Your task to perform on an android device: Open accessibility settings Image 0: 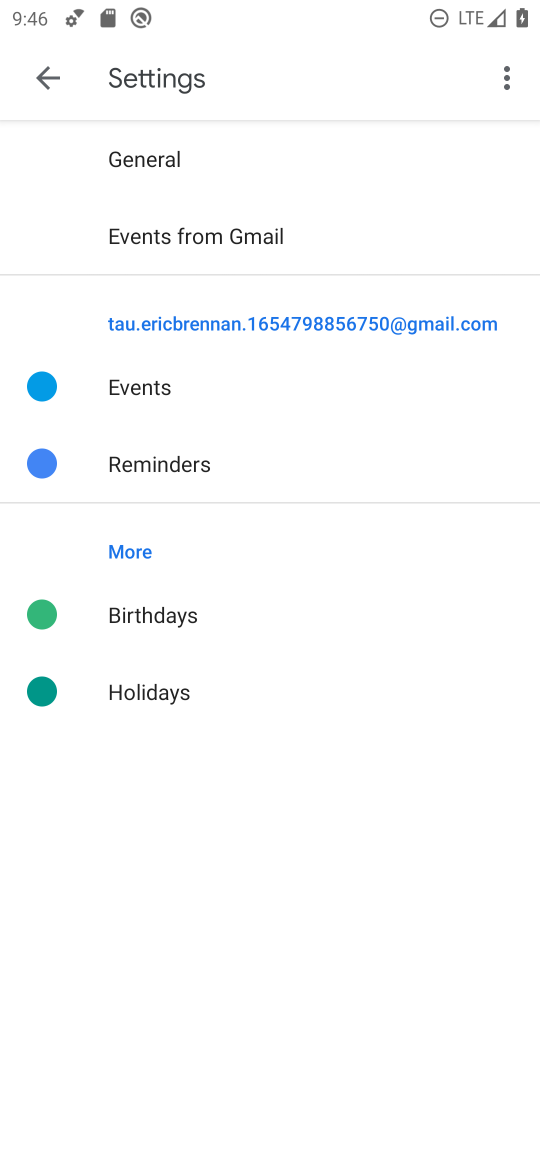
Step 0: press home button
Your task to perform on an android device: Open accessibility settings Image 1: 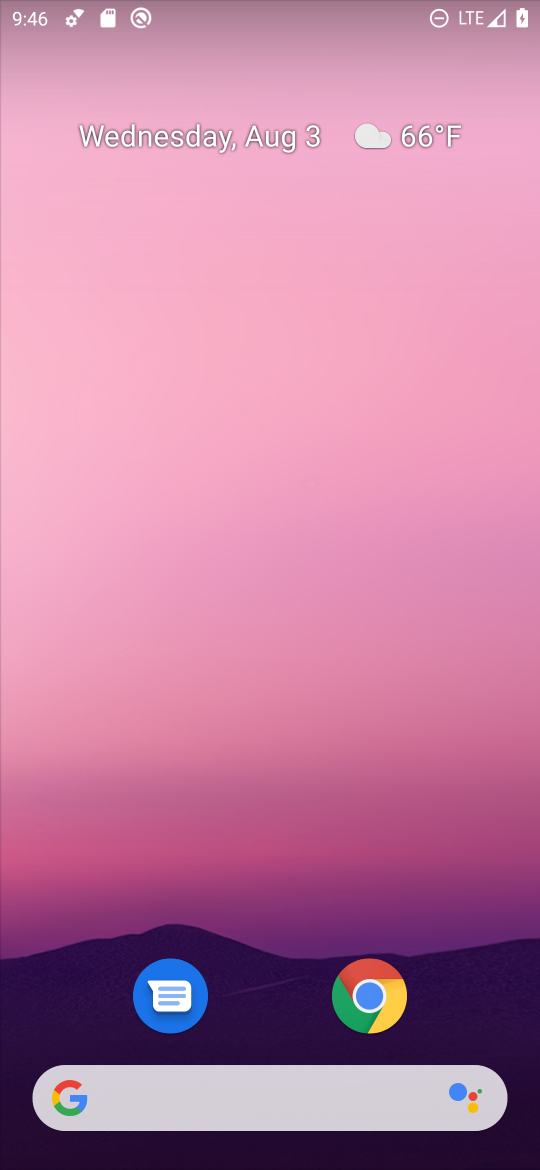
Step 1: drag from (276, 906) to (277, 18)
Your task to perform on an android device: Open accessibility settings Image 2: 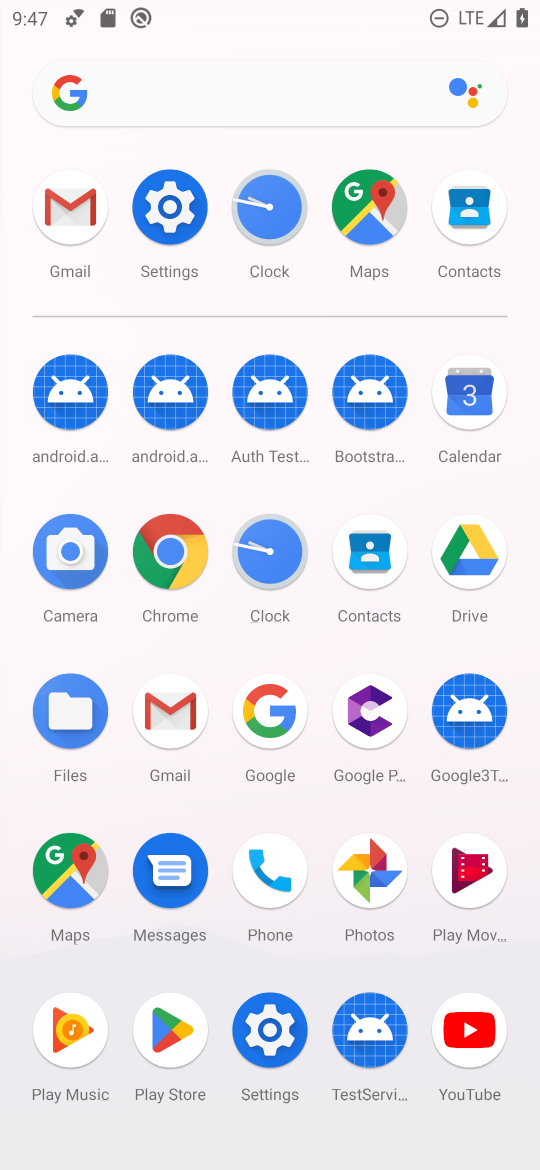
Step 2: click (173, 204)
Your task to perform on an android device: Open accessibility settings Image 3: 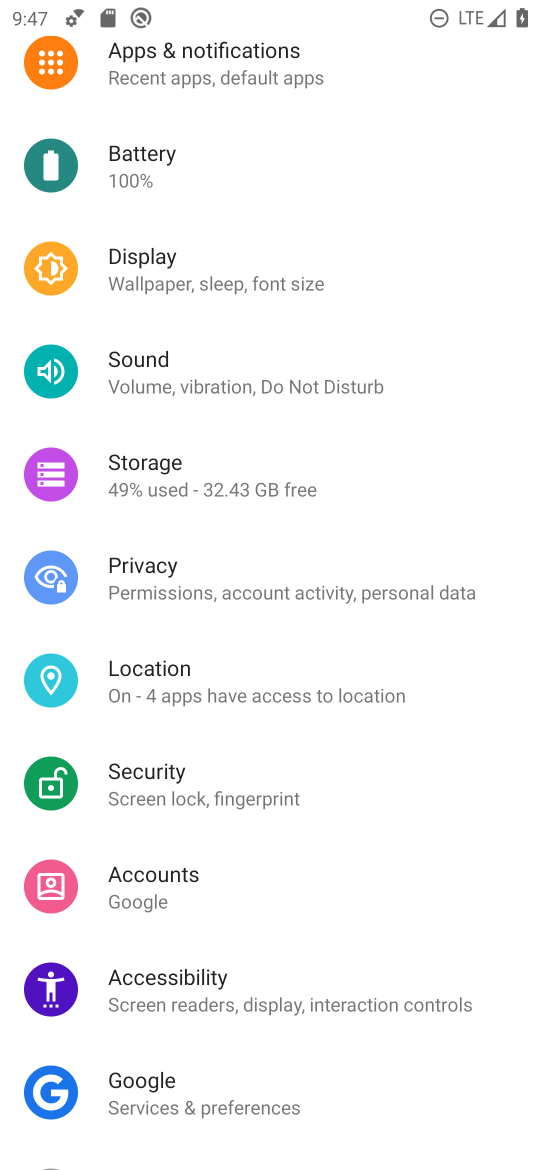
Step 3: click (326, 996)
Your task to perform on an android device: Open accessibility settings Image 4: 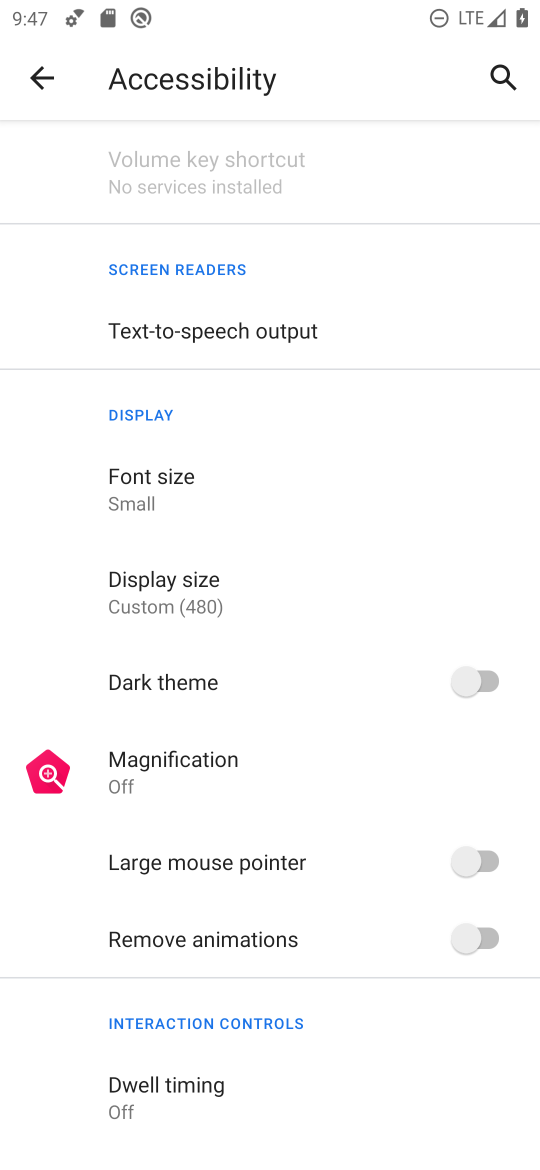
Step 4: task complete